Your task to perform on an android device: uninstall "Viber Messenger" Image 0: 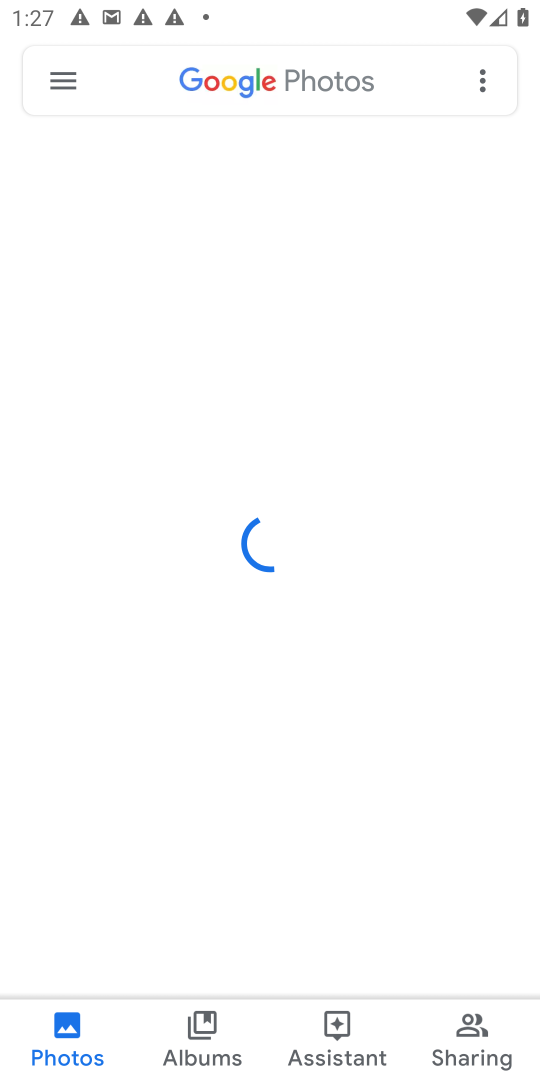
Step 0: press home button
Your task to perform on an android device: uninstall "Viber Messenger" Image 1: 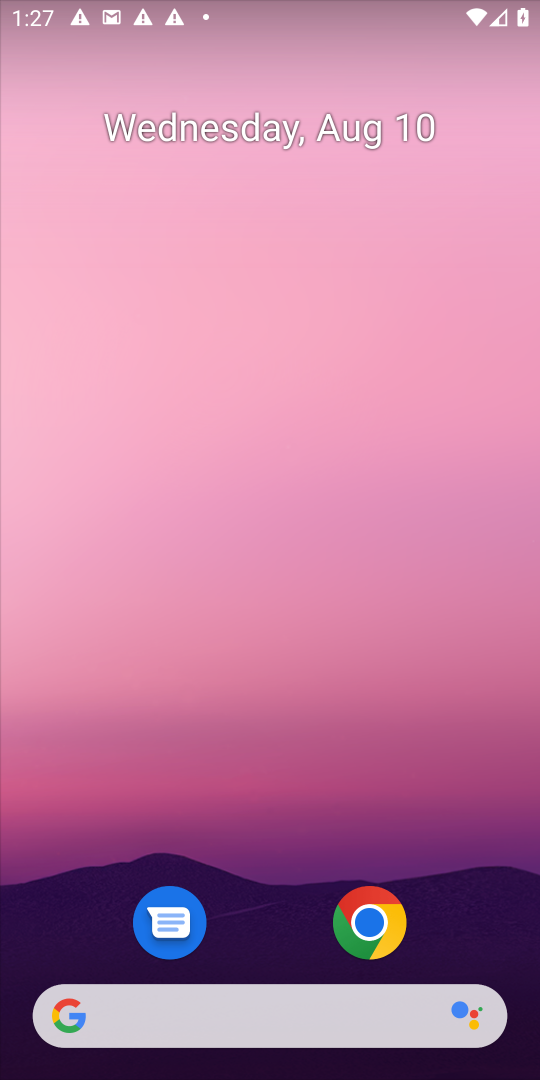
Step 1: drag from (247, 909) to (268, 43)
Your task to perform on an android device: uninstall "Viber Messenger" Image 2: 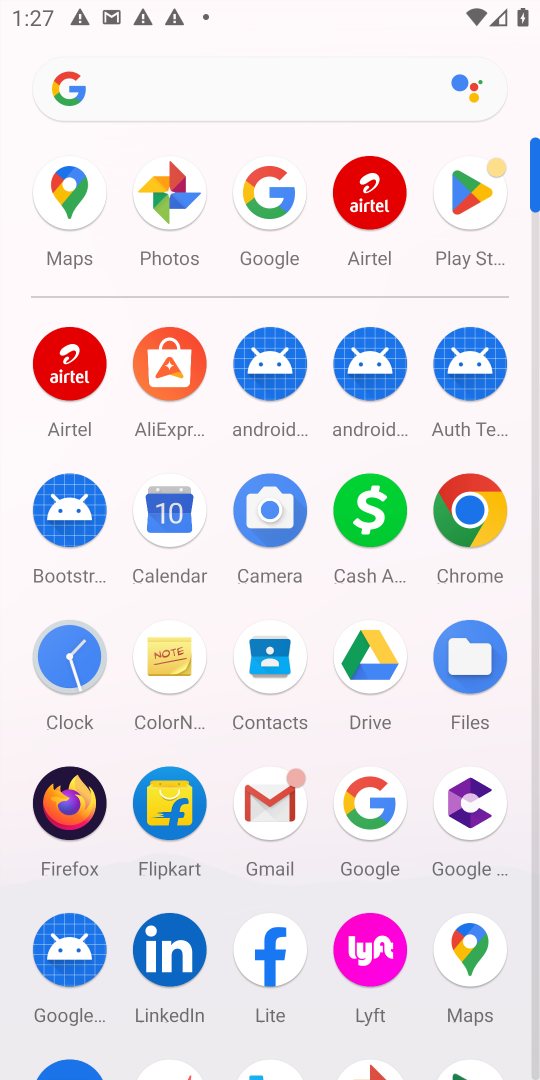
Step 2: click (469, 196)
Your task to perform on an android device: uninstall "Viber Messenger" Image 3: 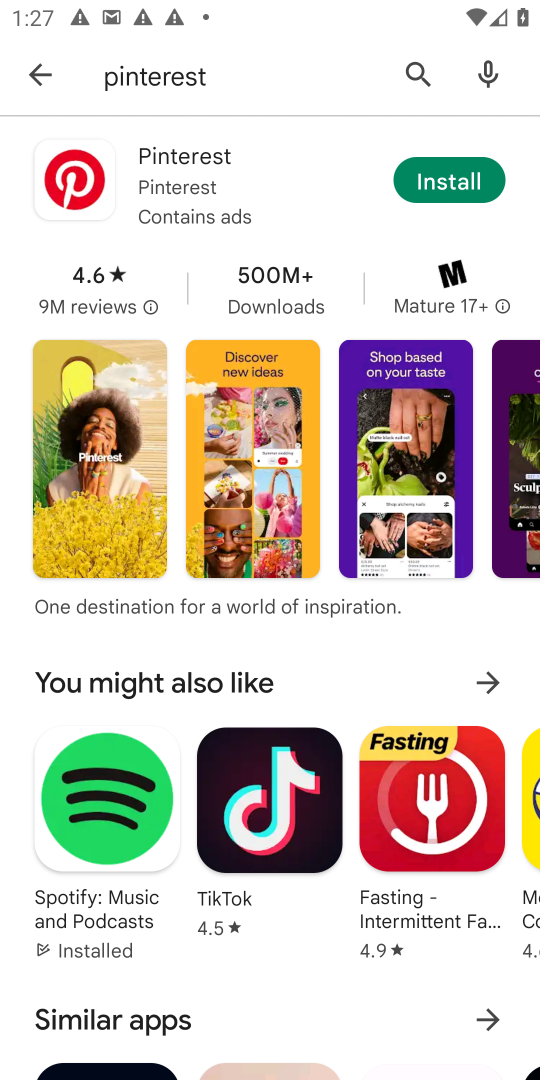
Step 3: click (41, 79)
Your task to perform on an android device: uninstall "Viber Messenger" Image 4: 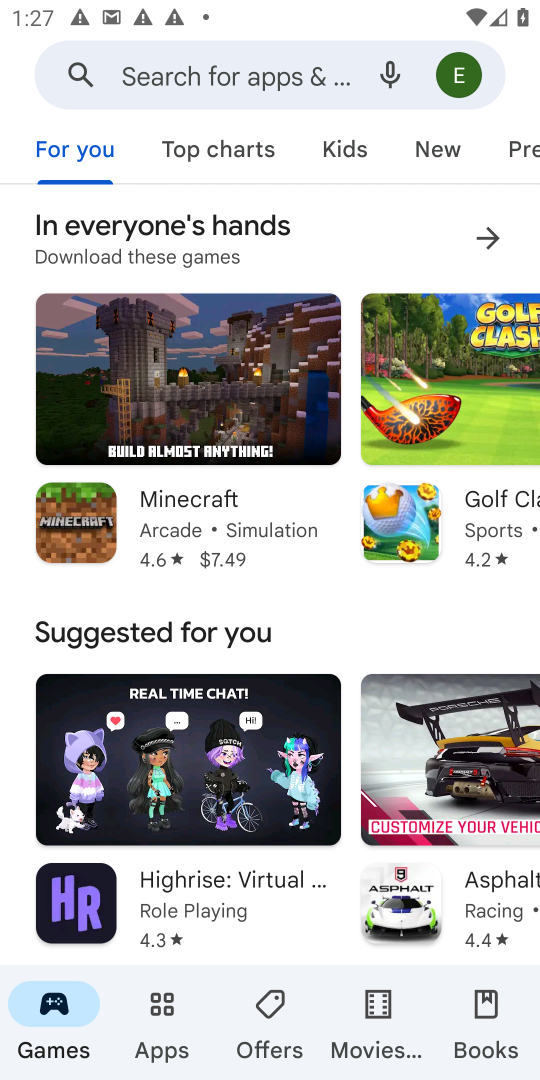
Step 4: click (220, 68)
Your task to perform on an android device: uninstall "Viber Messenger" Image 5: 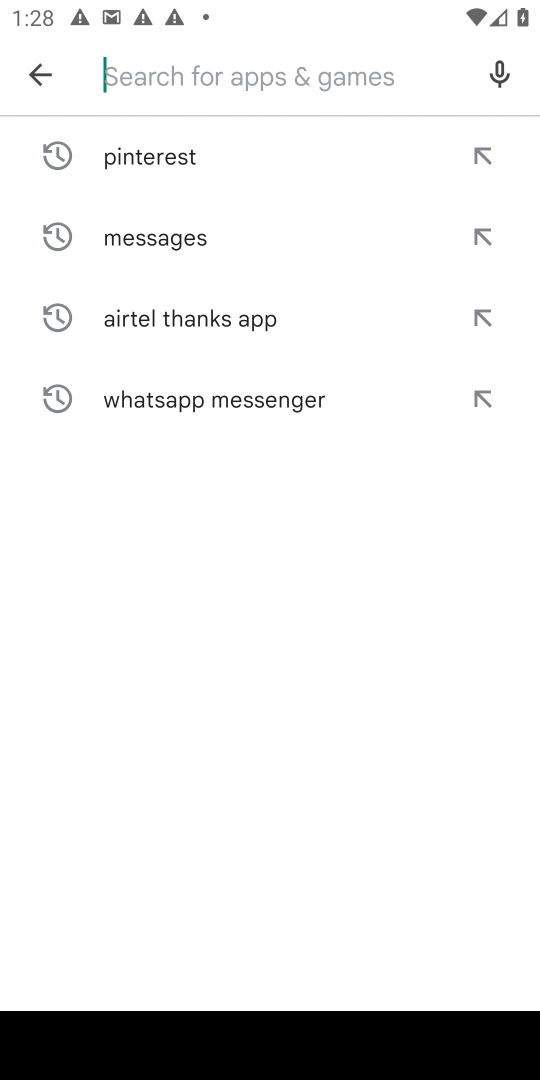
Step 5: type "Viber Messenger"
Your task to perform on an android device: uninstall "Viber Messenger" Image 6: 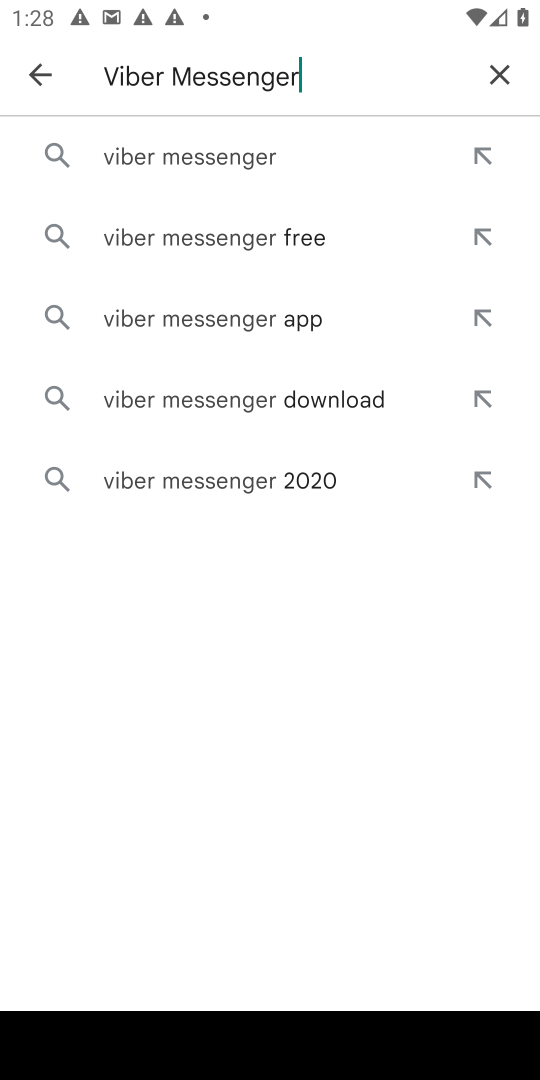
Step 6: click (213, 159)
Your task to perform on an android device: uninstall "Viber Messenger" Image 7: 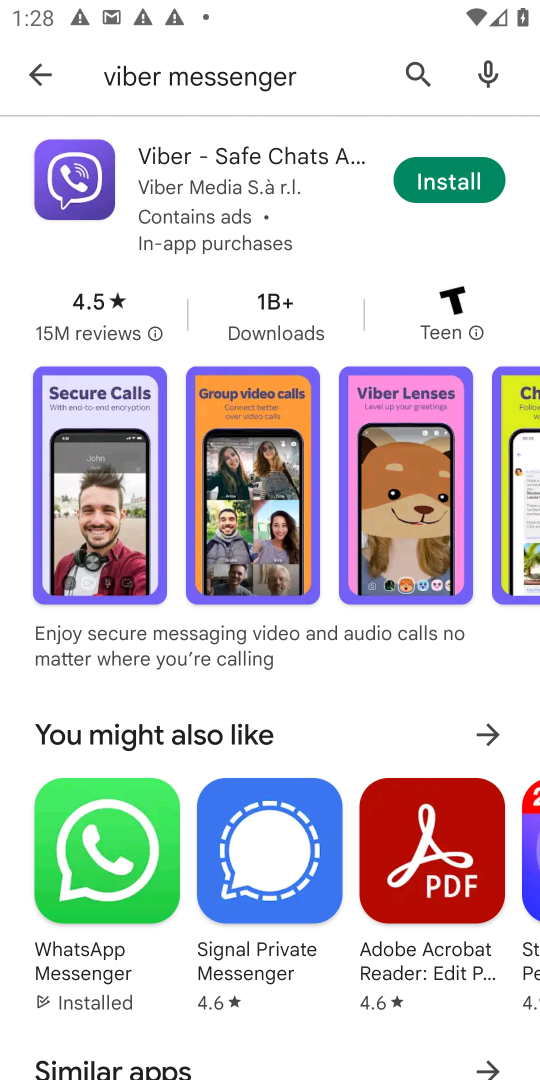
Step 7: task complete